Your task to perform on an android device: What's the weather going to be tomorrow? Image 0: 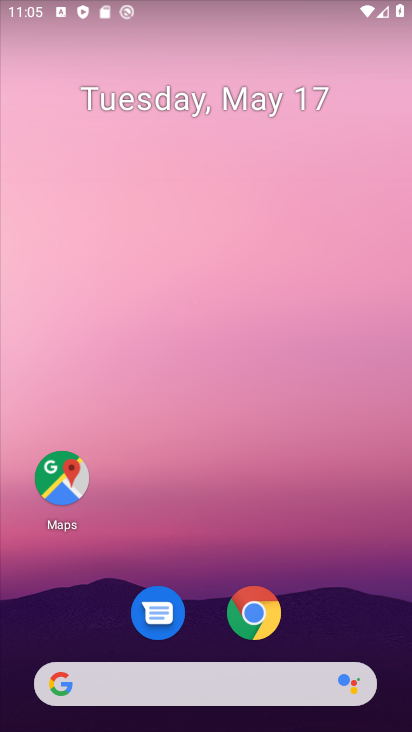
Step 0: click (255, 612)
Your task to perform on an android device: What's the weather going to be tomorrow? Image 1: 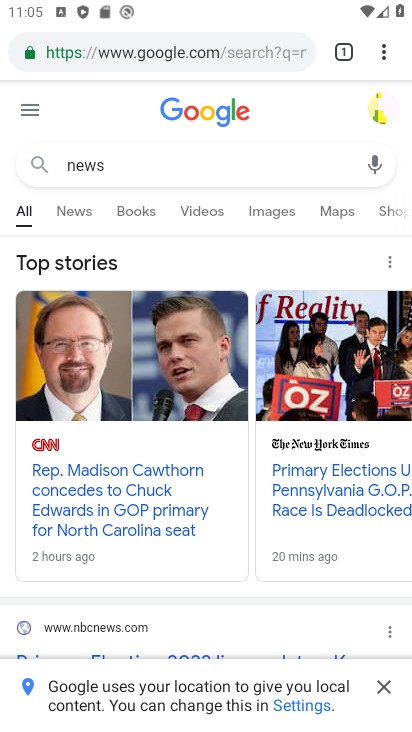
Step 1: click (118, 40)
Your task to perform on an android device: What's the weather going to be tomorrow? Image 2: 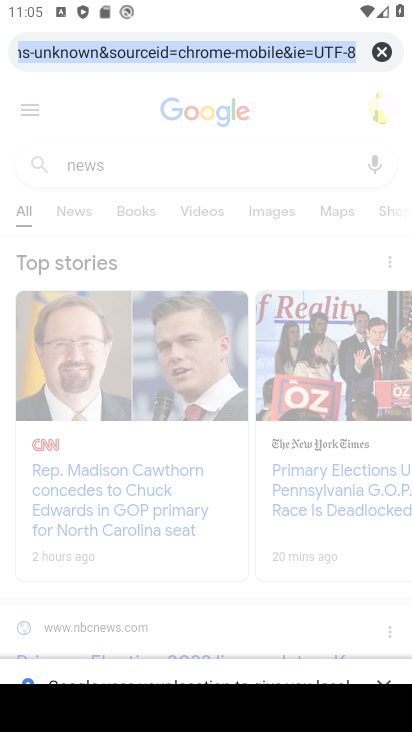
Step 2: type "What's the weather going to be tomorrow?"
Your task to perform on an android device: What's the weather going to be tomorrow? Image 3: 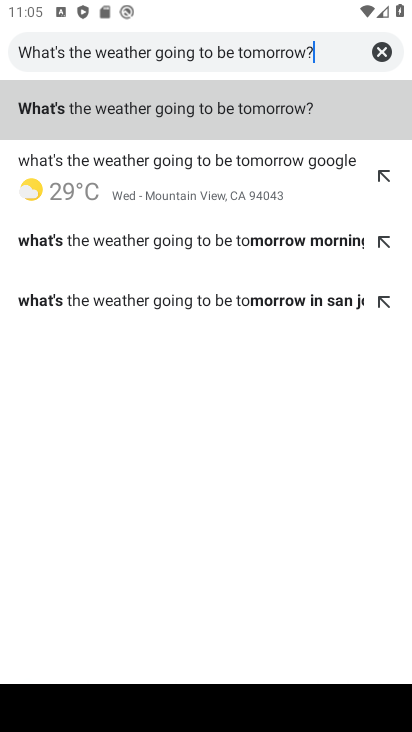
Step 3: click (225, 118)
Your task to perform on an android device: What's the weather going to be tomorrow? Image 4: 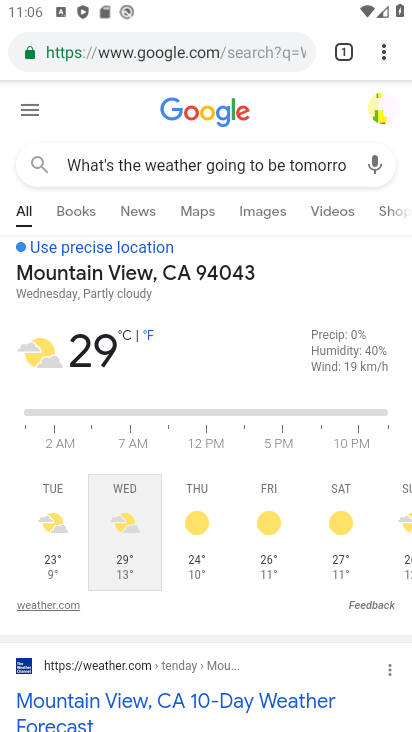
Step 4: task complete